Your task to perform on an android device: stop showing notifications on the lock screen Image 0: 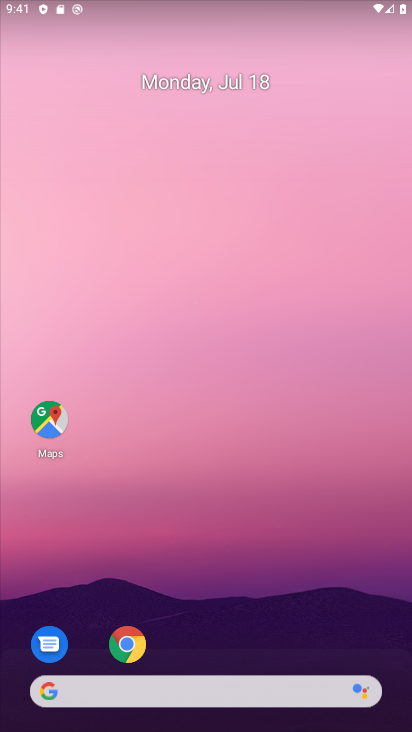
Step 0: drag from (189, 533) to (204, 147)
Your task to perform on an android device: stop showing notifications on the lock screen Image 1: 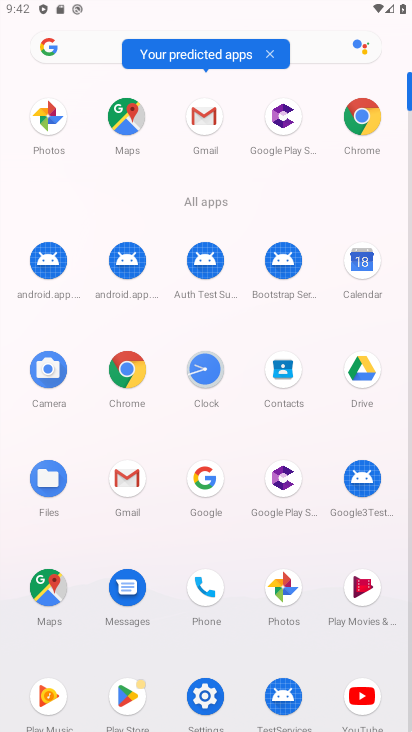
Step 1: click (201, 693)
Your task to perform on an android device: stop showing notifications on the lock screen Image 2: 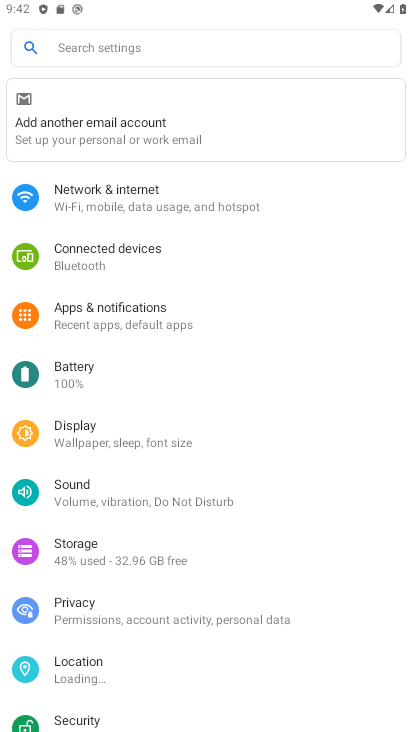
Step 2: click (124, 321)
Your task to perform on an android device: stop showing notifications on the lock screen Image 3: 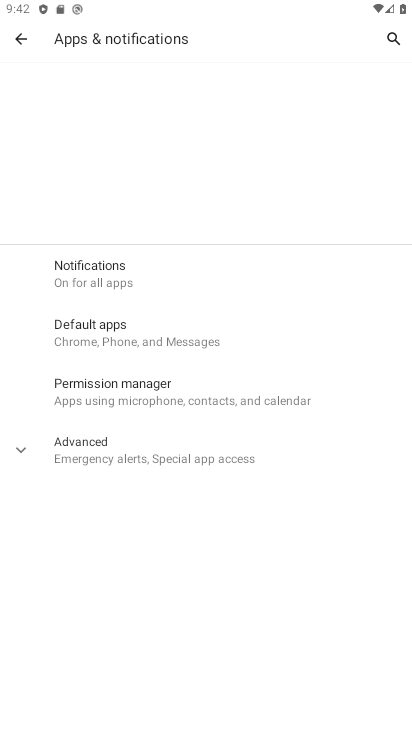
Step 3: click (146, 288)
Your task to perform on an android device: stop showing notifications on the lock screen Image 4: 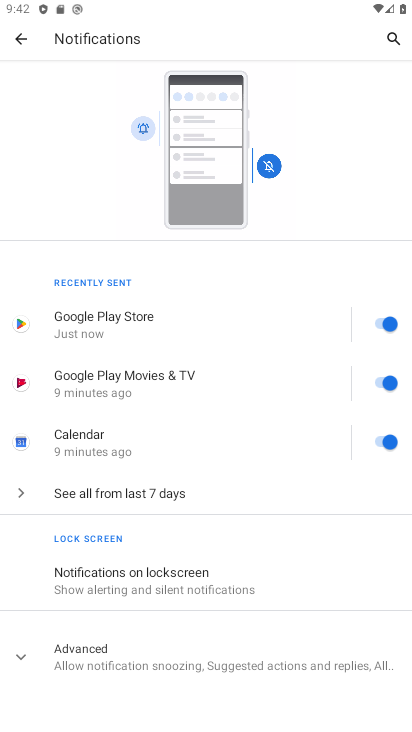
Step 4: click (183, 583)
Your task to perform on an android device: stop showing notifications on the lock screen Image 5: 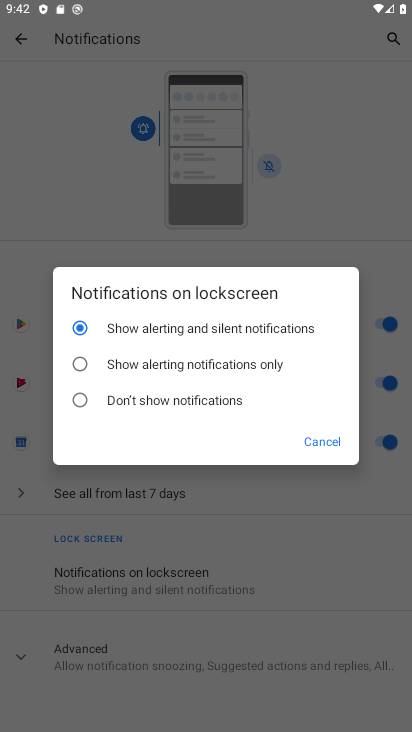
Step 5: click (218, 398)
Your task to perform on an android device: stop showing notifications on the lock screen Image 6: 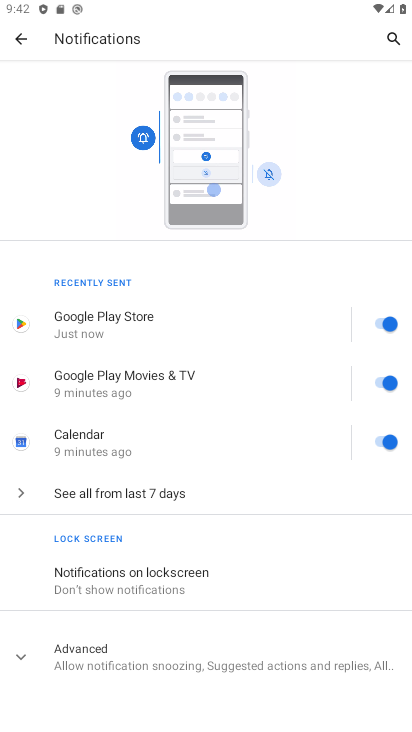
Step 6: task complete